Your task to perform on an android device: Open Yahoo.com Image 0: 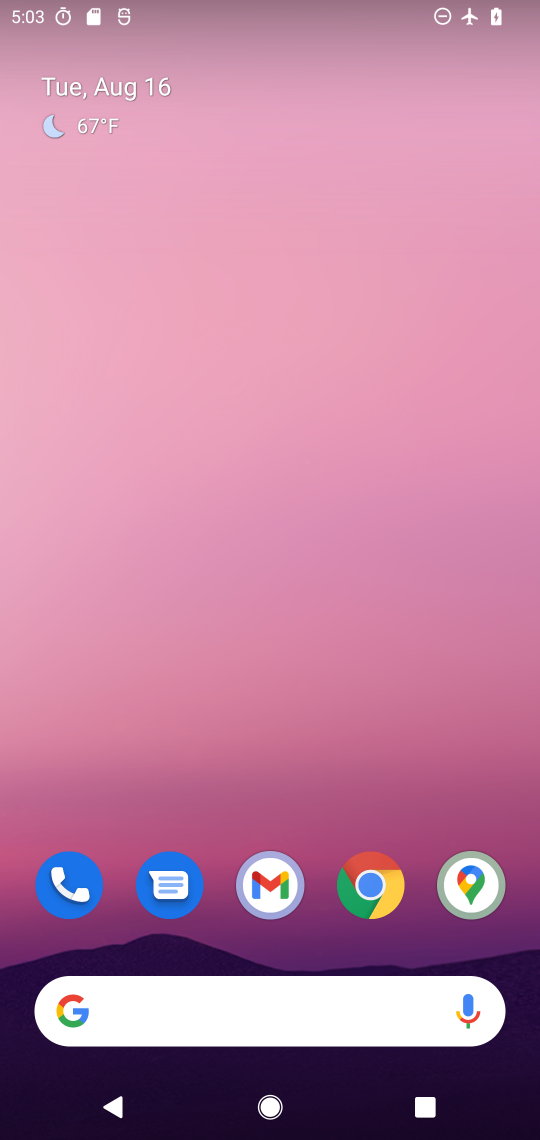
Step 0: click (391, 868)
Your task to perform on an android device: Open Yahoo.com Image 1: 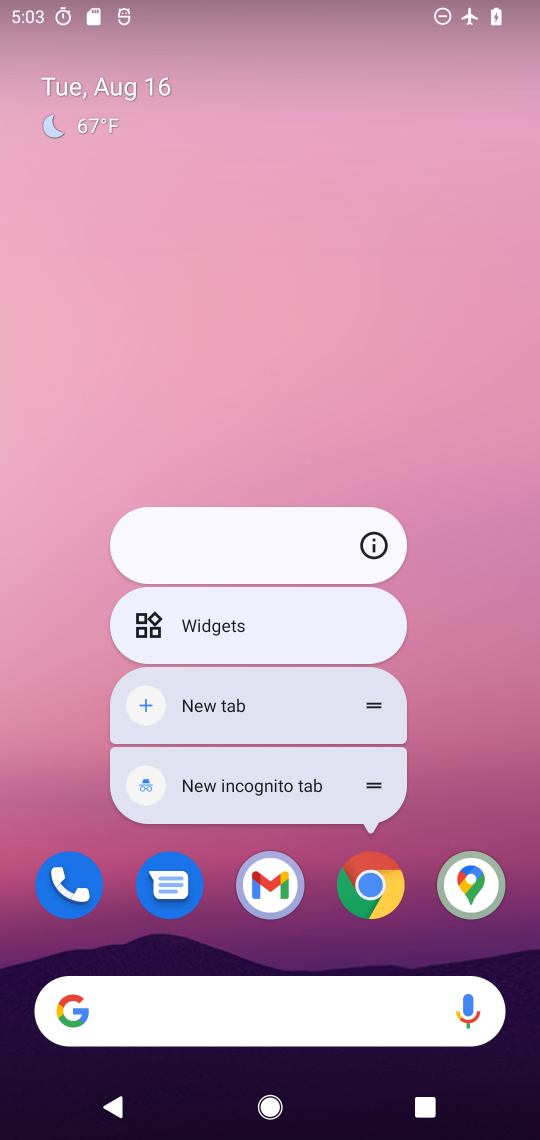
Step 1: click (372, 890)
Your task to perform on an android device: Open Yahoo.com Image 2: 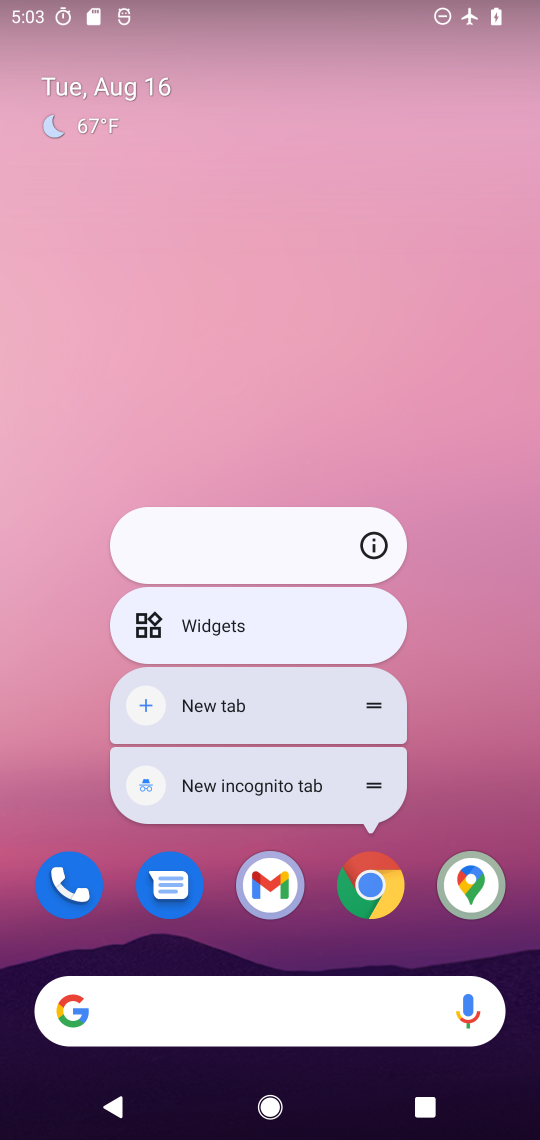
Step 2: click (372, 898)
Your task to perform on an android device: Open Yahoo.com Image 3: 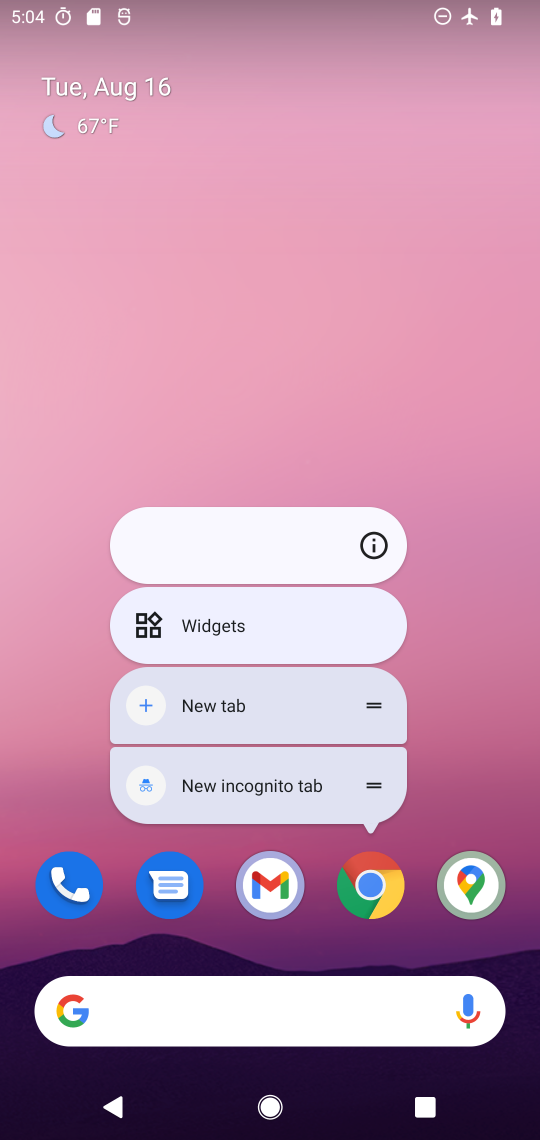
Step 3: click (372, 898)
Your task to perform on an android device: Open Yahoo.com Image 4: 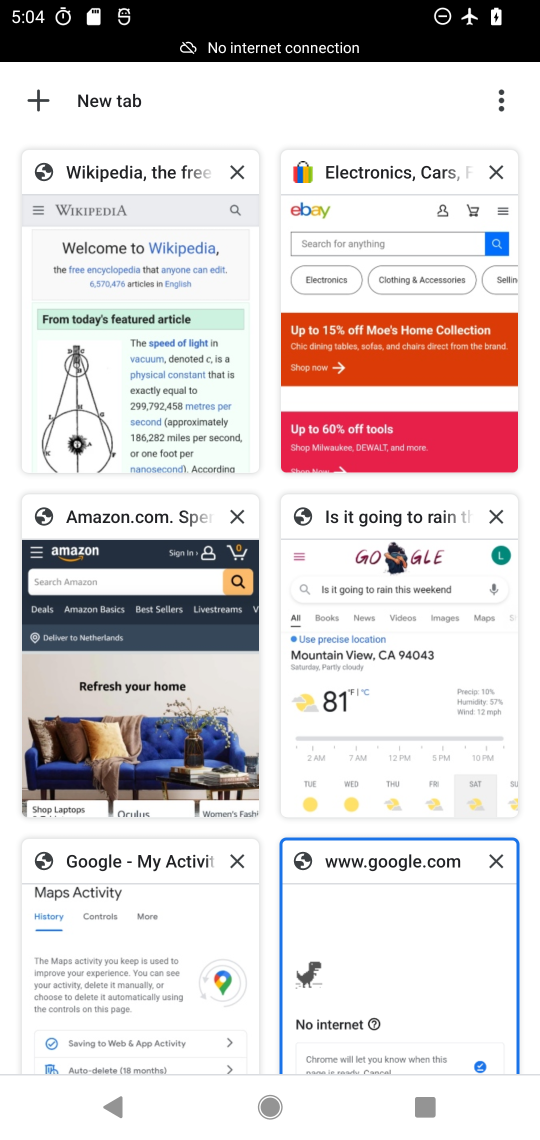
Step 4: click (27, 81)
Your task to perform on an android device: Open Yahoo.com Image 5: 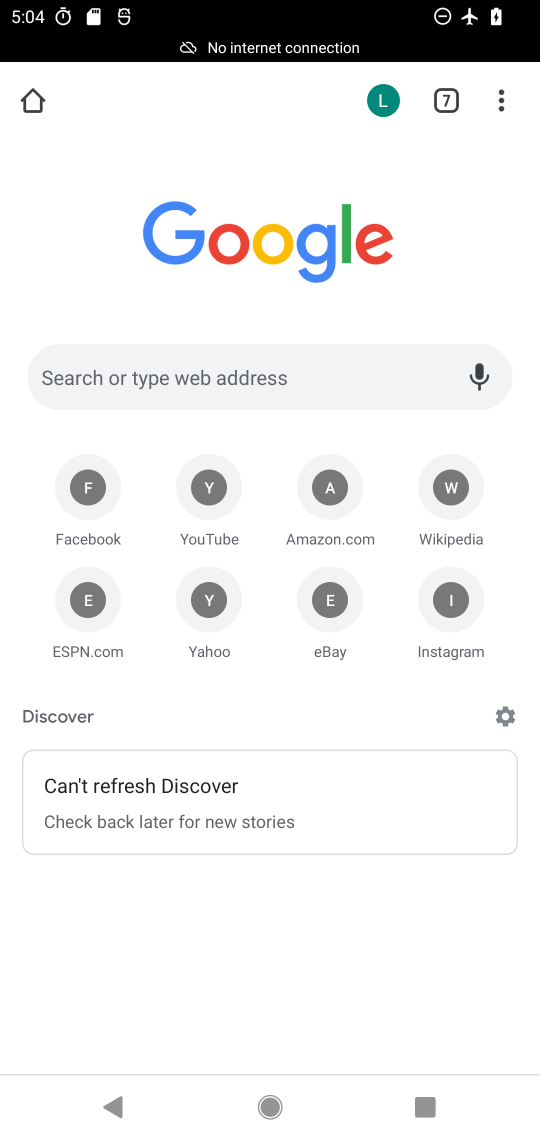
Step 5: click (214, 603)
Your task to perform on an android device: Open Yahoo.com Image 6: 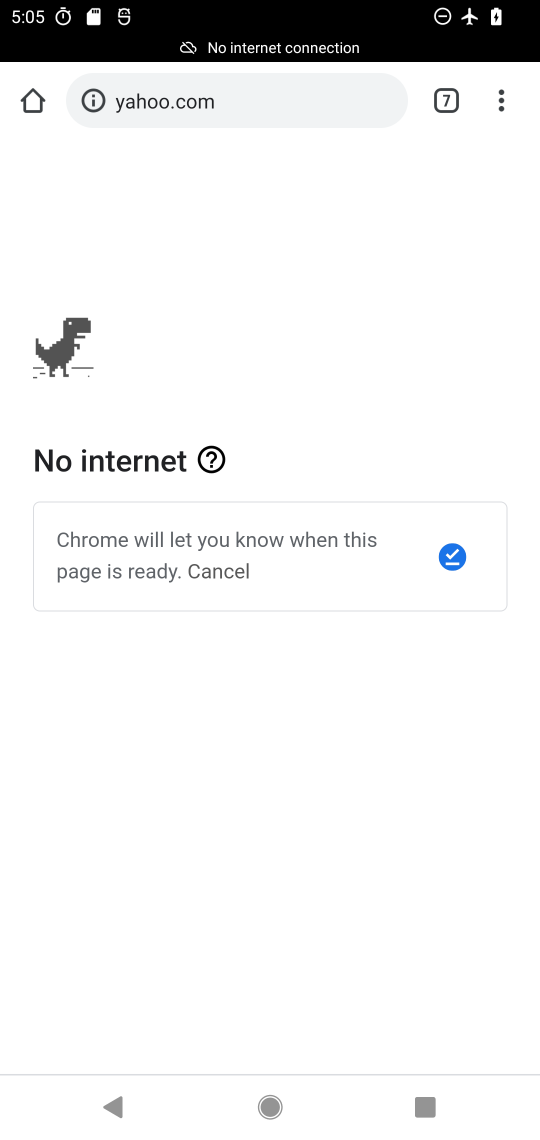
Step 6: task complete